Your task to perform on an android device: snooze an email in the gmail app Image 0: 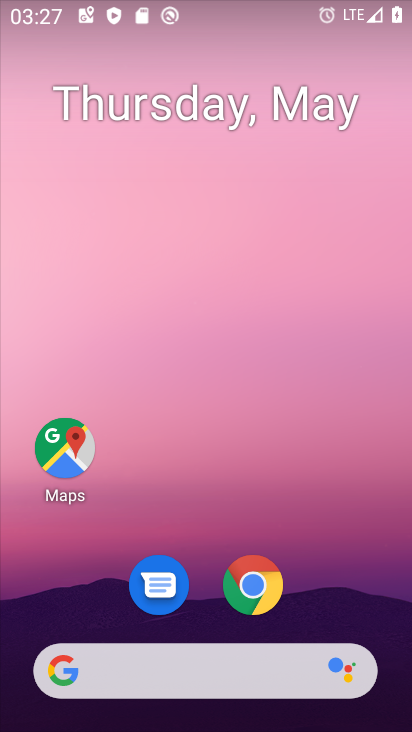
Step 0: drag from (295, 534) to (307, 40)
Your task to perform on an android device: snooze an email in the gmail app Image 1: 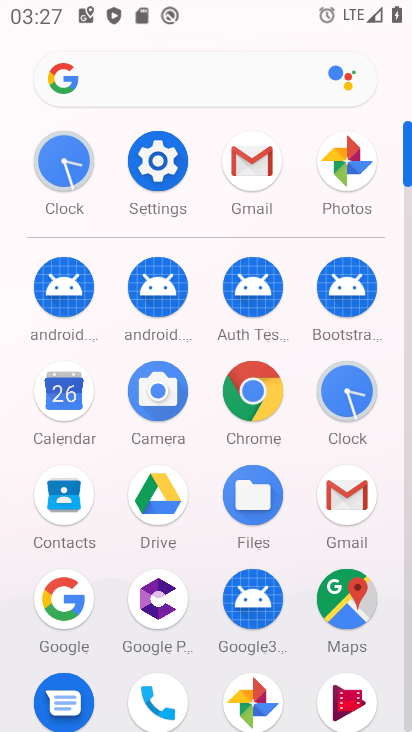
Step 1: click (267, 162)
Your task to perform on an android device: snooze an email in the gmail app Image 2: 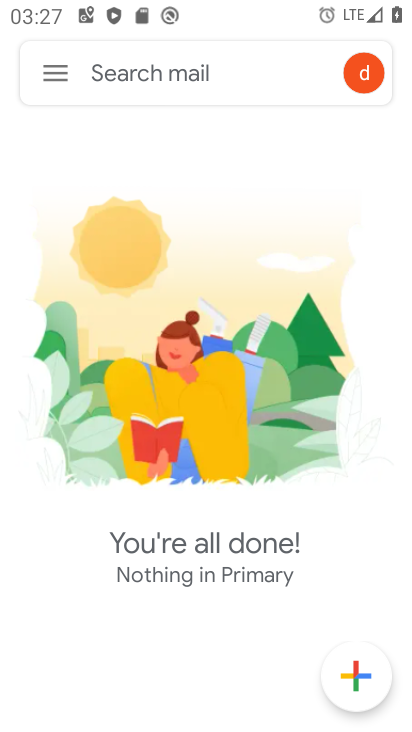
Step 2: click (52, 70)
Your task to perform on an android device: snooze an email in the gmail app Image 3: 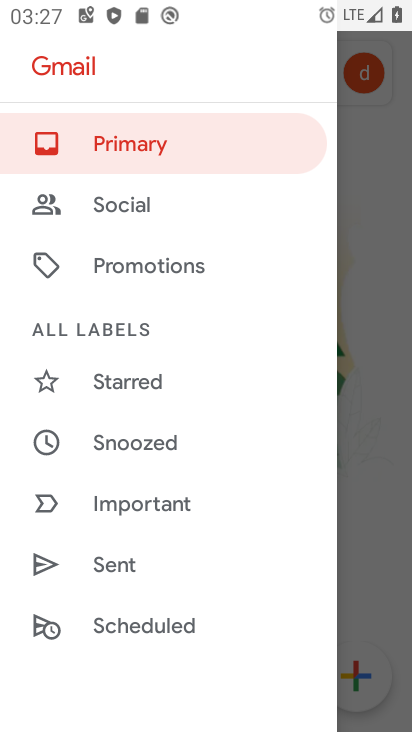
Step 3: drag from (164, 588) to (233, 155)
Your task to perform on an android device: snooze an email in the gmail app Image 4: 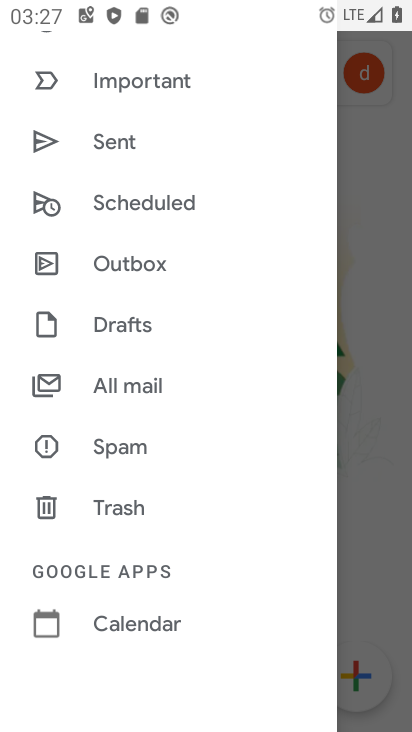
Step 4: click (150, 385)
Your task to perform on an android device: snooze an email in the gmail app Image 5: 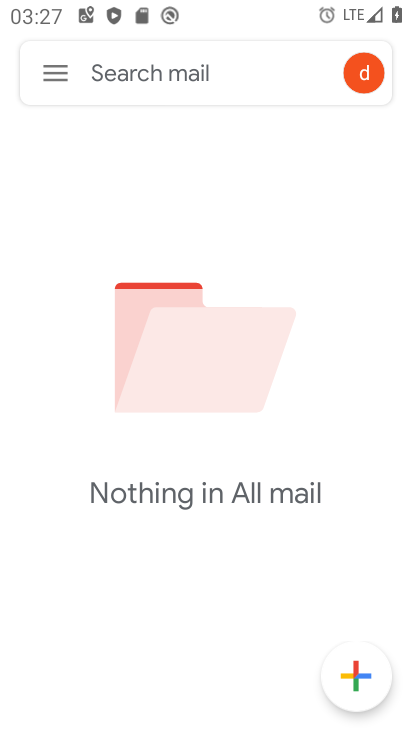
Step 5: task complete